Your task to perform on an android device: Set the phone to "Do not disturb". Image 0: 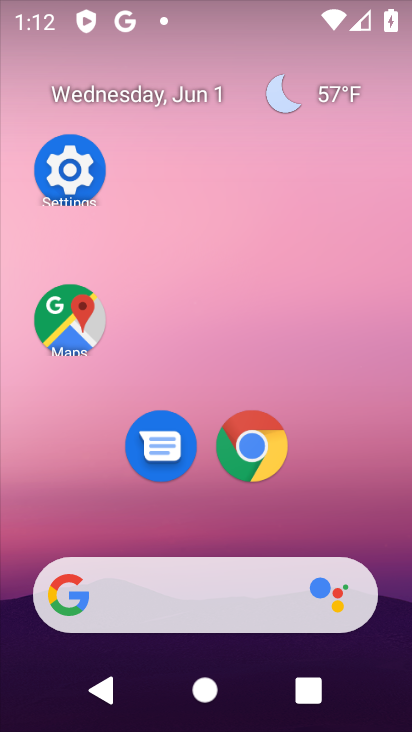
Step 0: click (88, 168)
Your task to perform on an android device: Set the phone to "Do not disturb". Image 1: 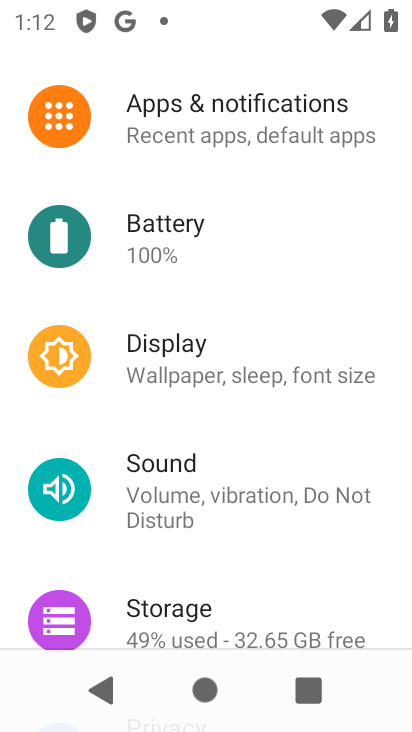
Step 1: click (325, 477)
Your task to perform on an android device: Set the phone to "Do not disturb". Image 2: 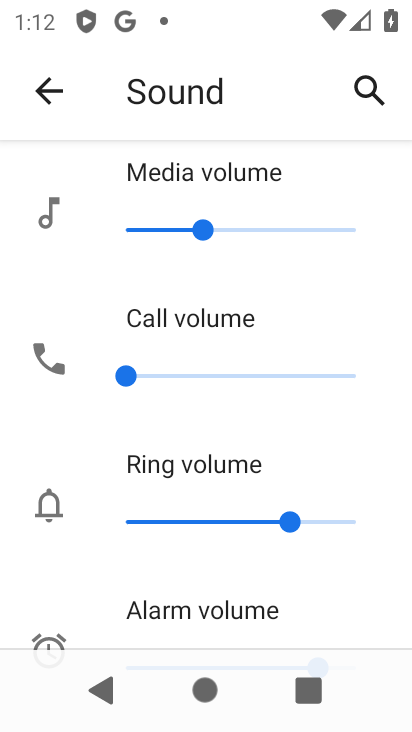
Step 2: drag from (340, 593) to (369, 199)
Your task to perform on an android device: Set the phone to "Do not disturb". Image 3: 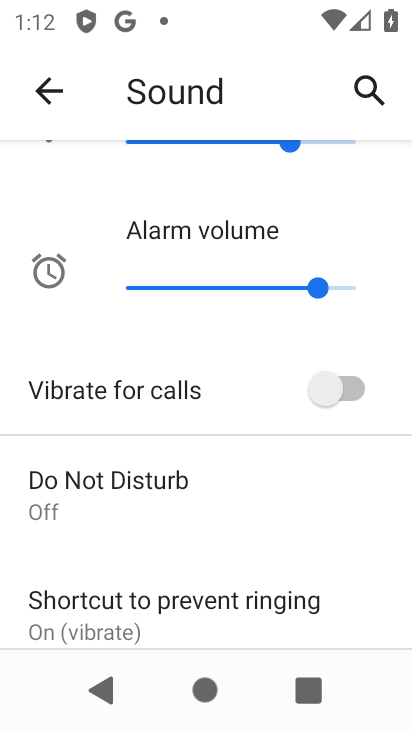
Step 3: click (250, 498)
Your task to perform on an android device: Set the phone to "Do not disturb". Image 4: 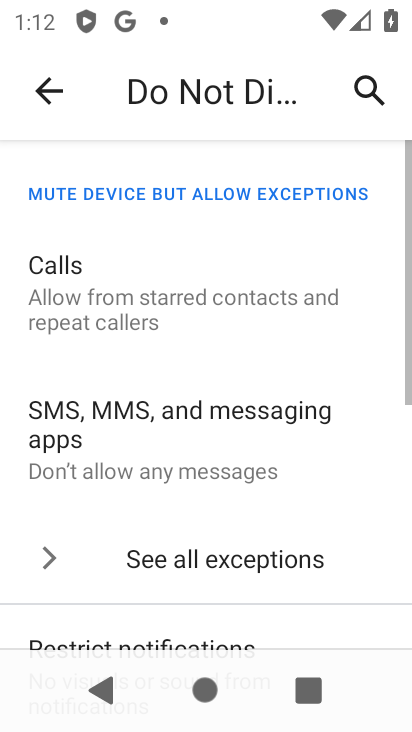
Step 4: drag from (251, 498) to (289, 114)
Your task to perform on an android device: Set the phone to "Do not disturb". Image 5: 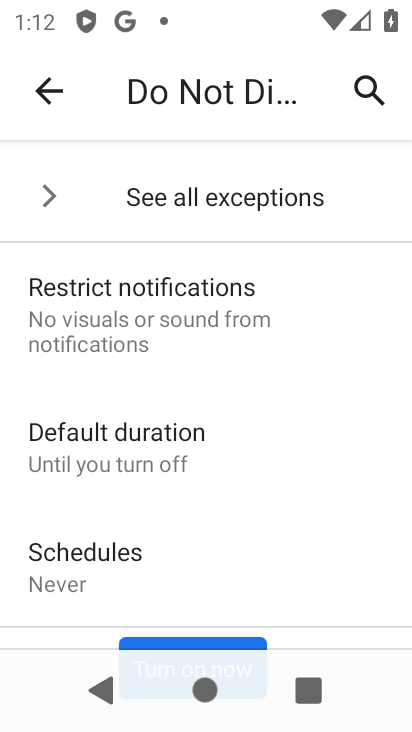
Step 5: drag from (221, 499) to (255, 165)
Your task to perform on an android device: Set the phone to "Do not disturb". Image 6: 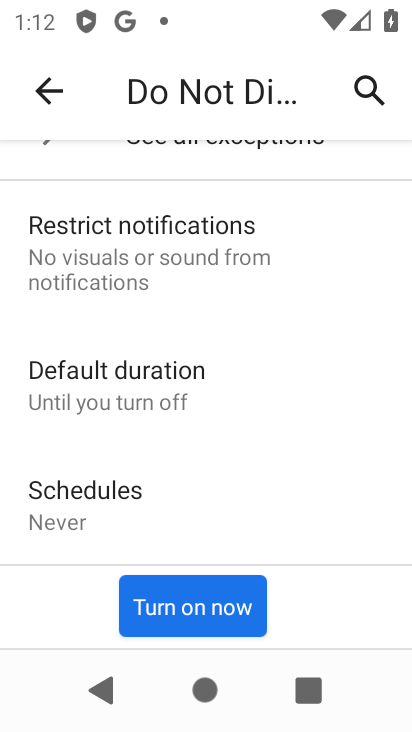
Step 6: click (236, 594)
Your task to perform on an android device: Set the phone to "Do not disturb". Image 7: 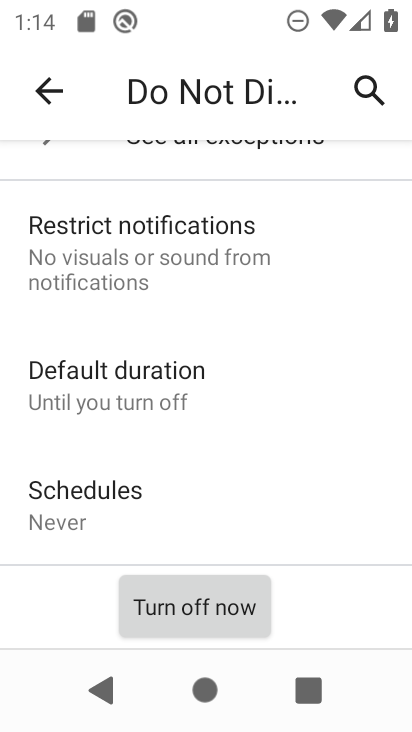
Step 7: task complete